Your task to perform on an android device: check data usage Image 0: 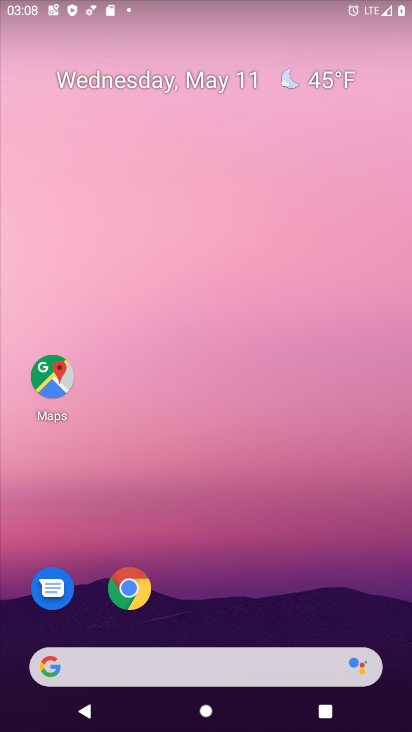
Step 0: drag from (228, 612) to (282, 322)
Your task to perform on an android device: check data usage Image 1: 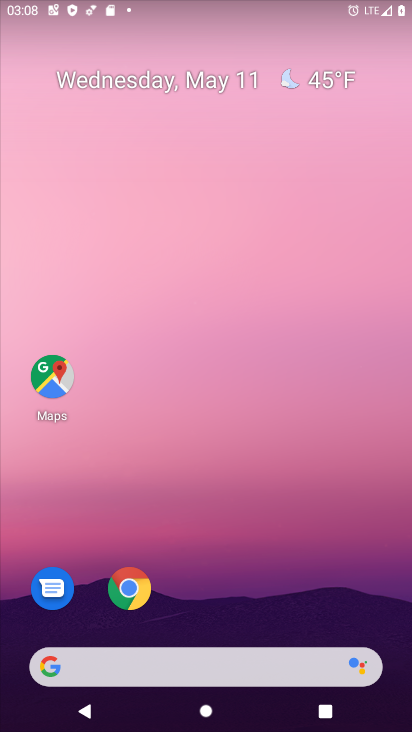
Step 1: drag from (208, 594) to (206, 338)
Your task to perform on an android device: check data usage Image 2: 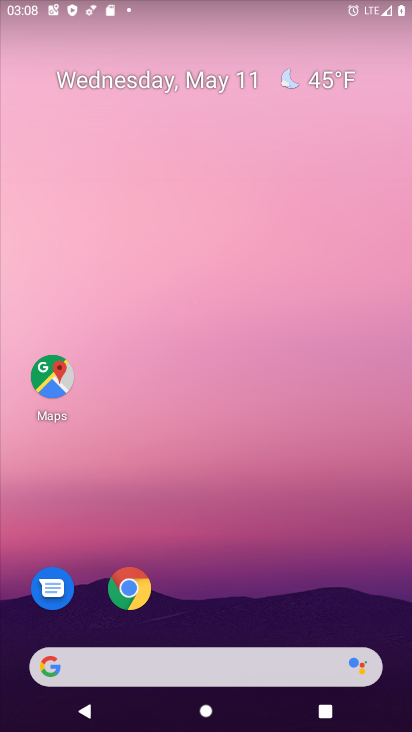
Step 2: drag from (222, 617) to (222, 268)
Your task to perform on an android device: check data usage Image 3: 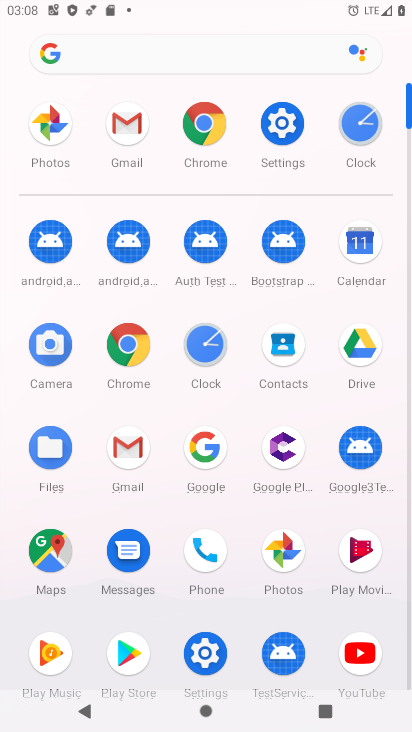
Step 3: click (288, 102)
Your task to perform on an android device: check data usage Image 4: 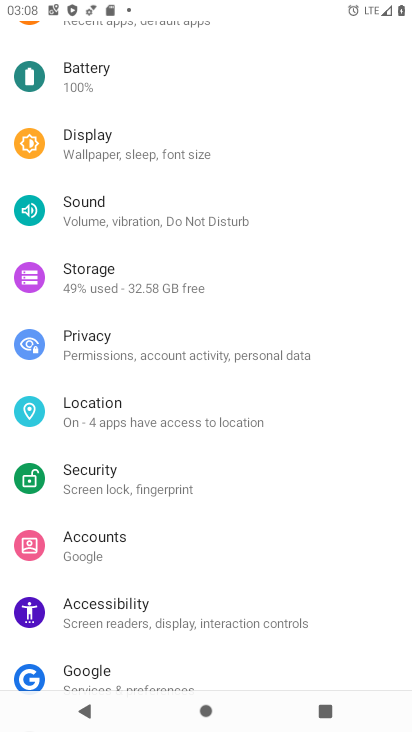
Step 4: drag from (151, 184) to (202, 482)
Your task to perform on an android device: check data usage Image 5: 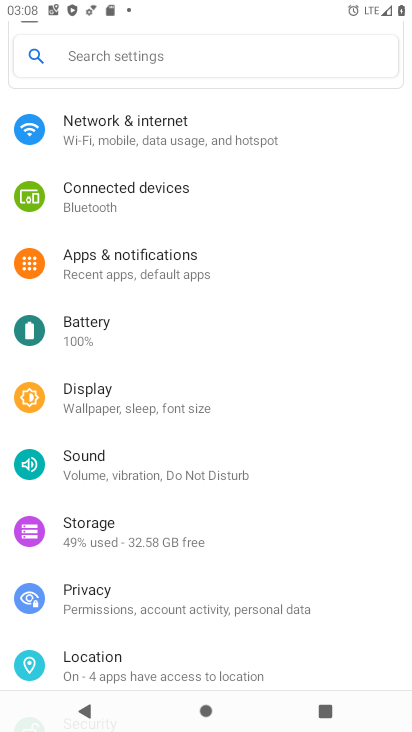
Step 5: click (157, 149)
Your task to perform on an android device: check data usage Image 6: 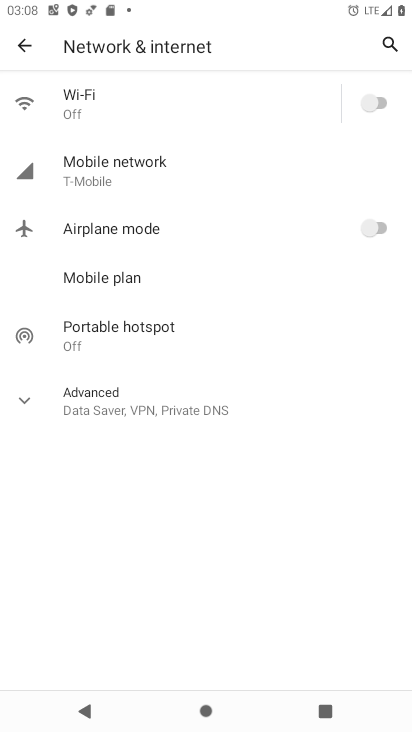
Step 6: click (143, 164)
Your task to perform on an android device: check data usage Image 7: 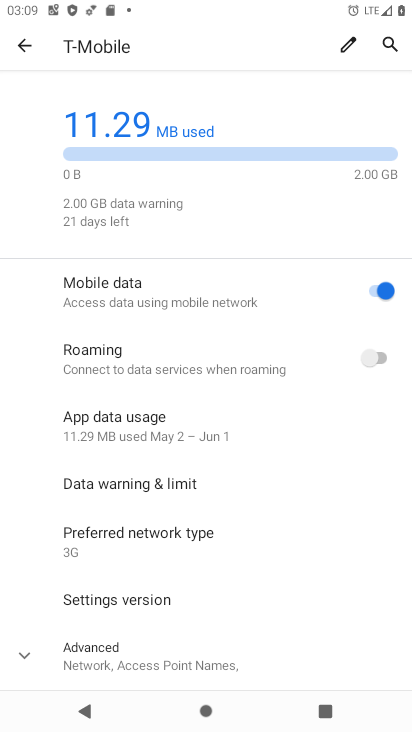
Step 7: task complete